Your task to perform on an android device: turn off picture-in-picture Image 0: 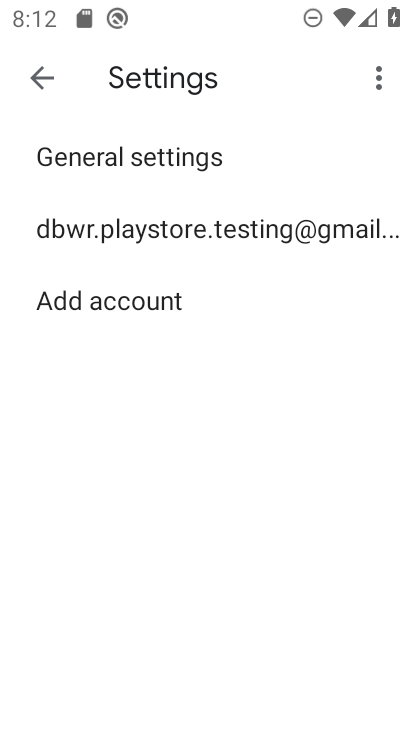
Step 0: press home button
Your task to perform on an android device: turn off picture-in-picture Image 1: 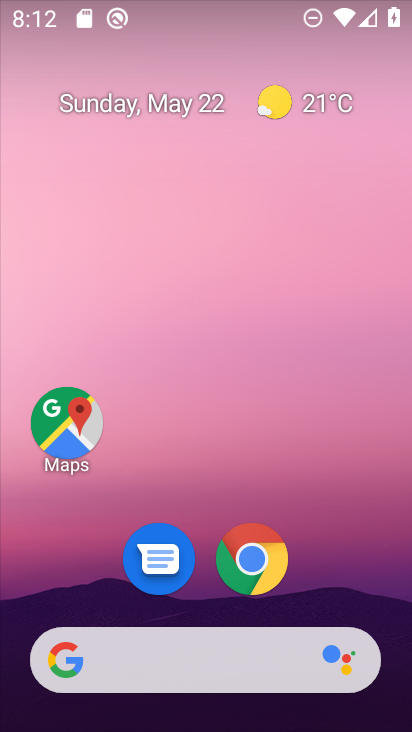
Step 1: drag from (284, 681) to (238, 288)
Your task to perform on an android device: turn off picture-in-picture Image 2: 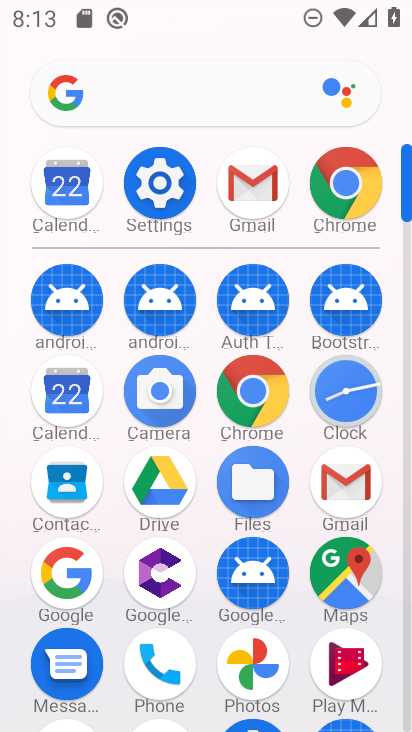
Step 2: click (166, 191)
Your task to perform on an android device: turn off picture-in-picture Image 3: 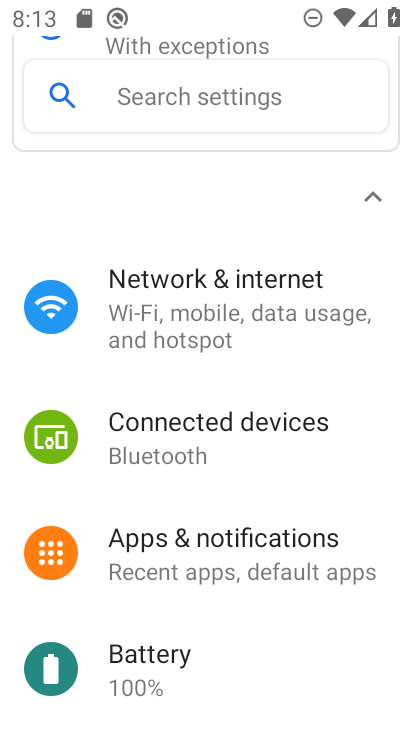
Step 3: click (181, 101)
Your task to perform on an android device: turn off picture-in-picture Image 4: 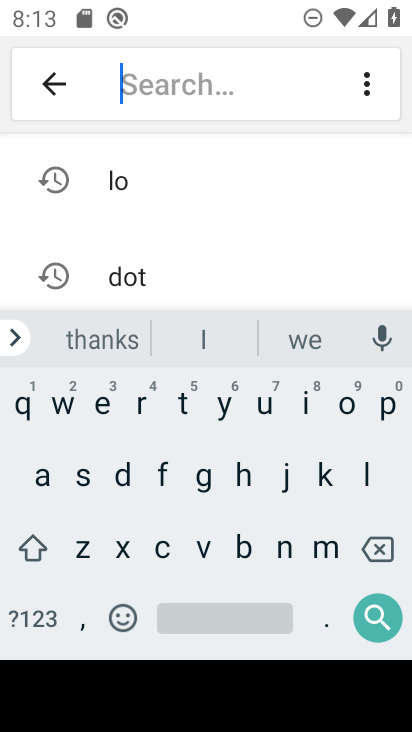
Step 4: click (395, 410)
Your task to perform on an android device: turn off picture-in-picture Image 5: 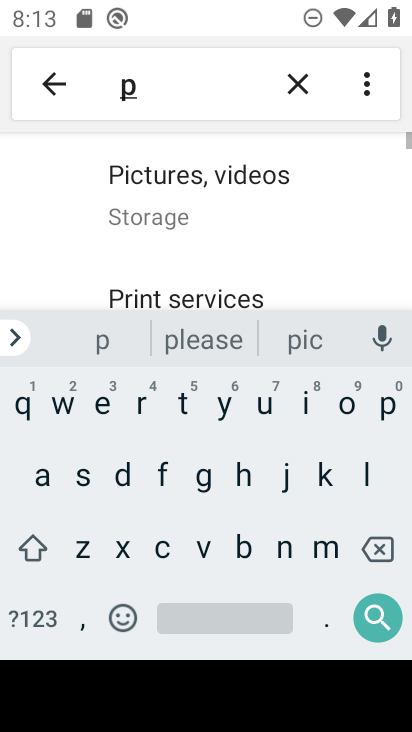
Step 5: click (310, 411)
Your task to perform on an android device: turn off picture-in-picture Image 6: 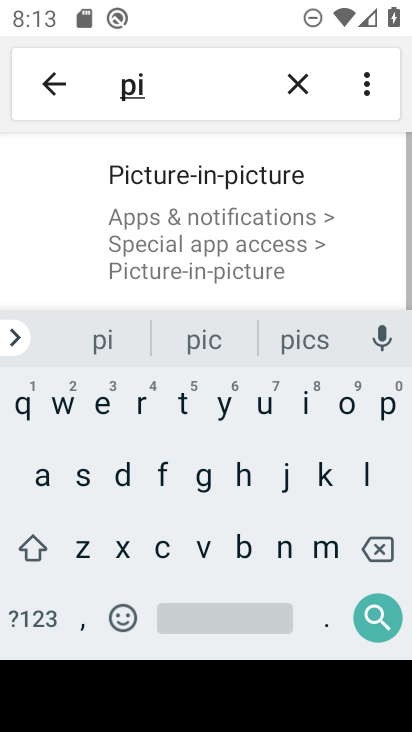
Step 6: click (155, 550)
Your task to perform on an android device: turn off picture-in-picture Image 7: 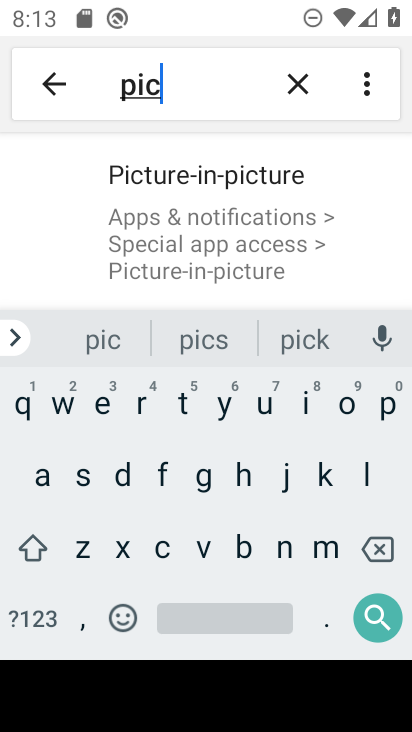
Step 7: click (185, 207)
Your task to perform on an android device: turn off picture-in-picture Image 8: 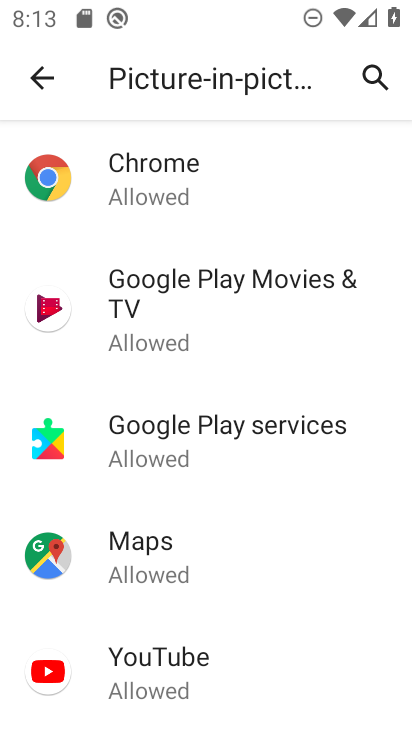
Step 8: task complete